Your task to perform on an android device: Open the calendar and show me this week's events Image 0: 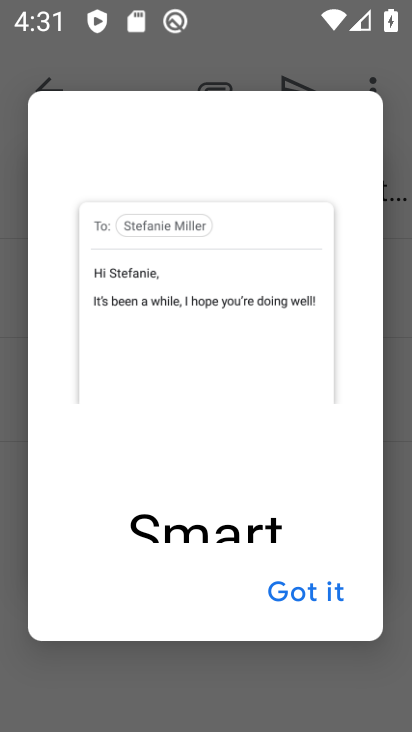
Step 0: press home button
Your task to perform on an android device: Open the calendar and show me this week's events Image 1: 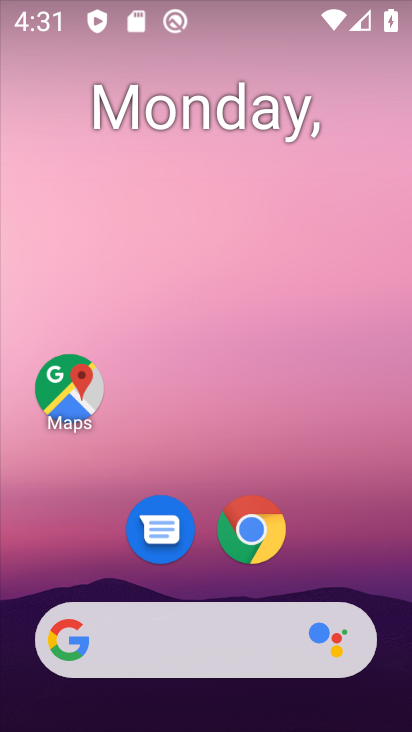
Step 1: drag from (197, 534) to (246, 313)
Your task to perform on an android device: Open the calendar and show me this week's events Image 2: 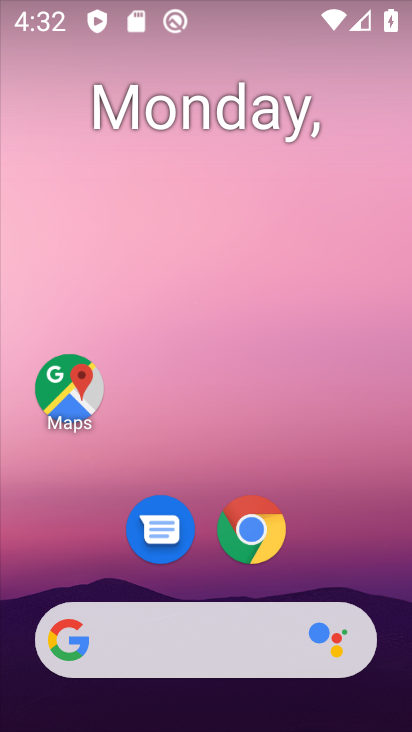
Step 2: drag from (211, 571) to (219, 25)
Your task to perform on an android device: Open the calendar and show me this week's events Image 3: 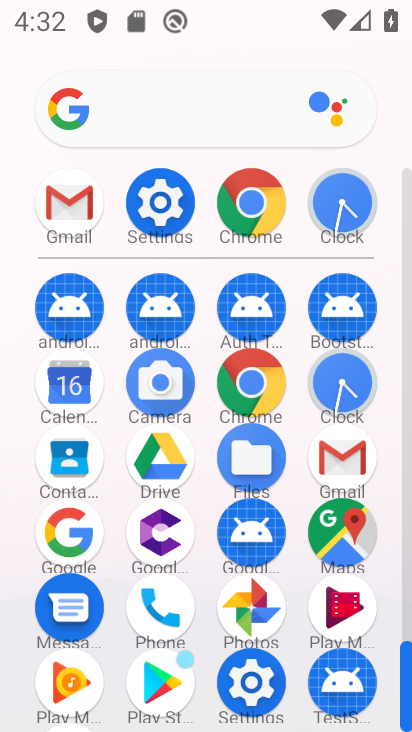
Step 3: click (70, 378)
Your task to perform on an android device: Open the calendar and show me this week's events Image 4: 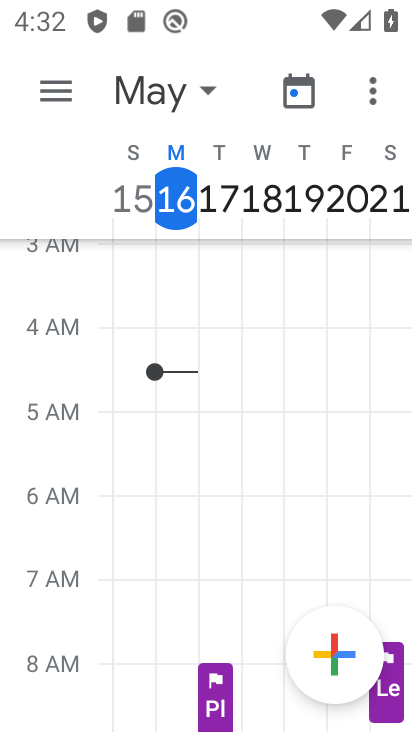
Step 4: click (55, 97)
Your task to perform on an android device: Open the calendar and show me this week's events Image 5: 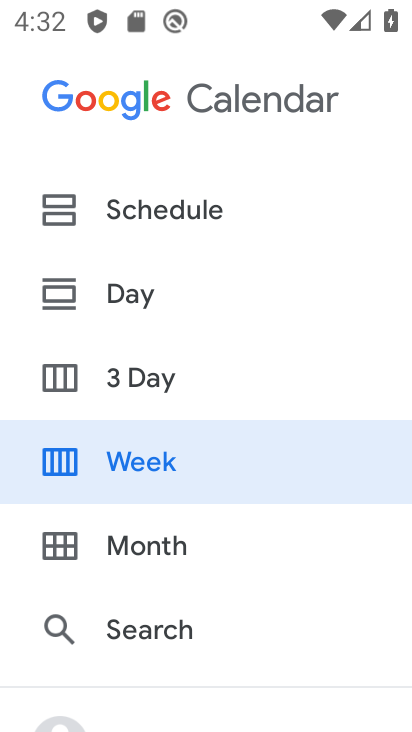
Step 5: drag from (132, 537) to (217, 113)
Your task to perform on an android device: Open the calendar and show me this week's events Image 6: 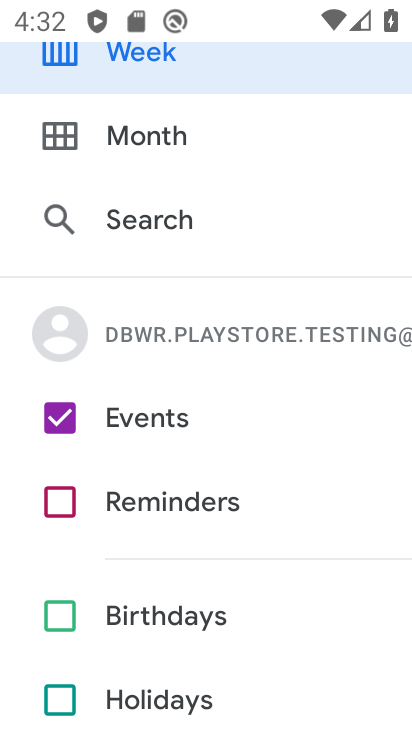
Step 6: click (213, 69)
Your task to perform on an android device: Open the calendar and show me this week's events Image 7: 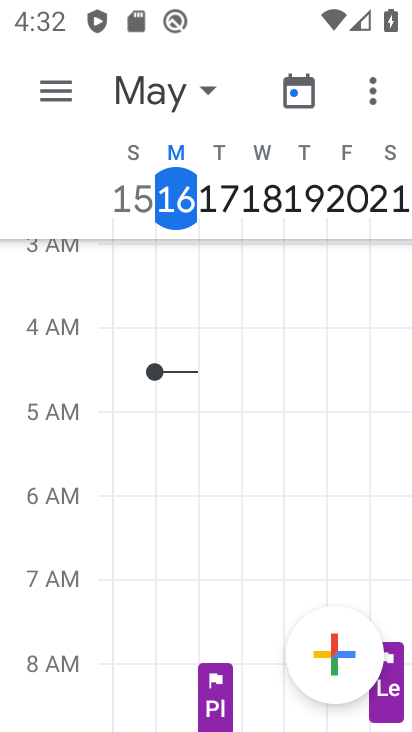
Step 7: task complete